Your task to perform on an android device: Show me popular games on the Play Store Image 0: 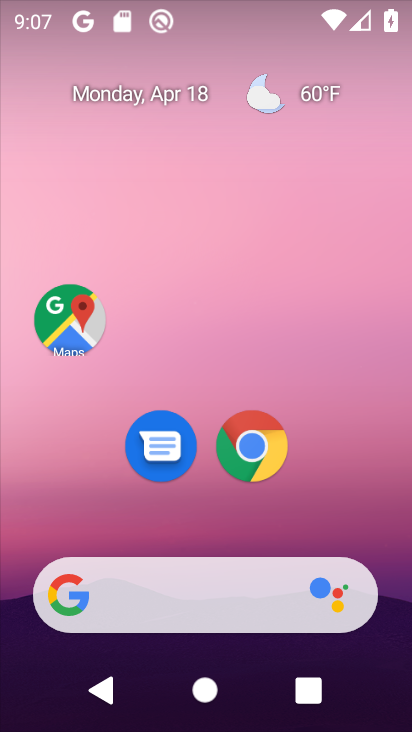
Step 0: drag from (385, 522) to (376, 94)
Your task to perform on an android device: Show me popular games on the Play Store Image 1: 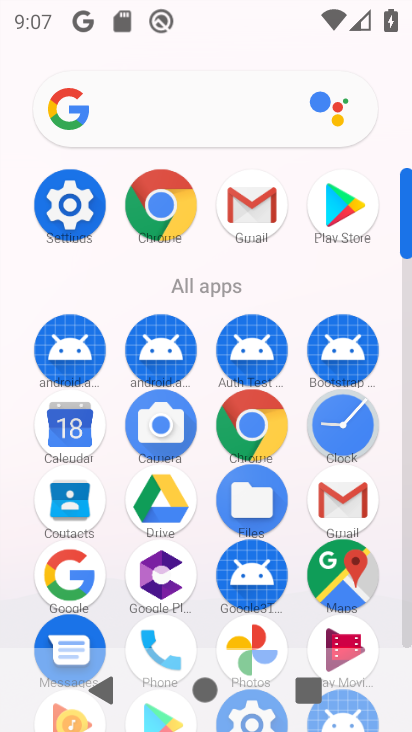
Step 1: drag from (391, 571) to (395, 234)
Your task to perform on an android device: Show me popular games on the Play Store Image 2: 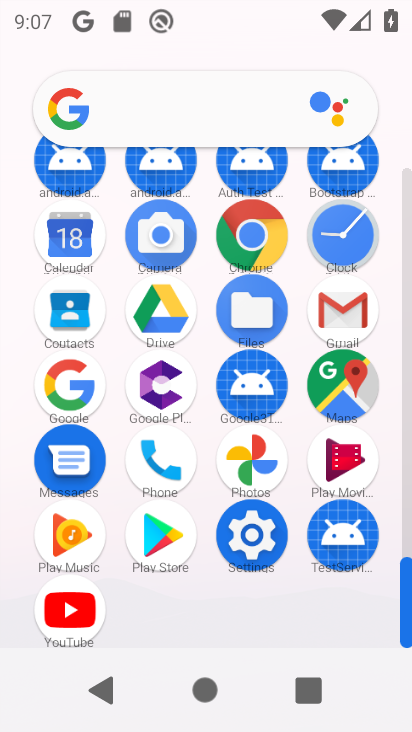
Step 2: click (162, 537)
Your task to perform on an android device: Show me popular games on the Play Store Image 3: 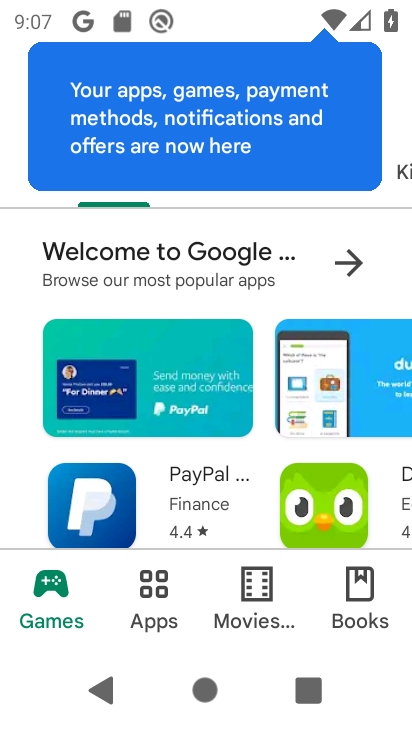
Step 3: task complete